Your task to perform on an android device: turn notification dots off Image 0: 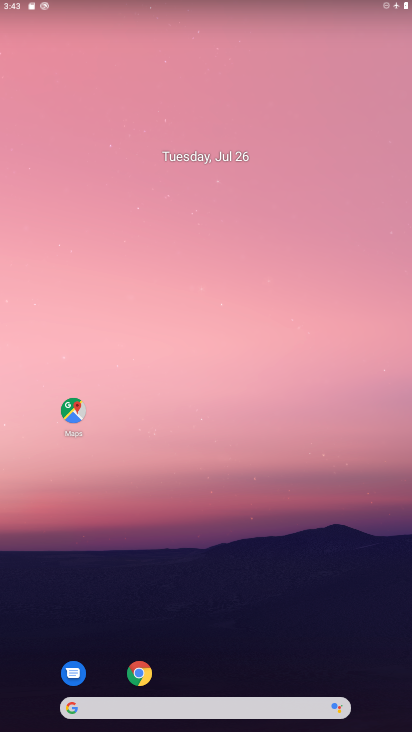
Step 0: drag from (225, 710) to (242, 17)
Your task to perform on an android device: turn notification dots off Image 1: 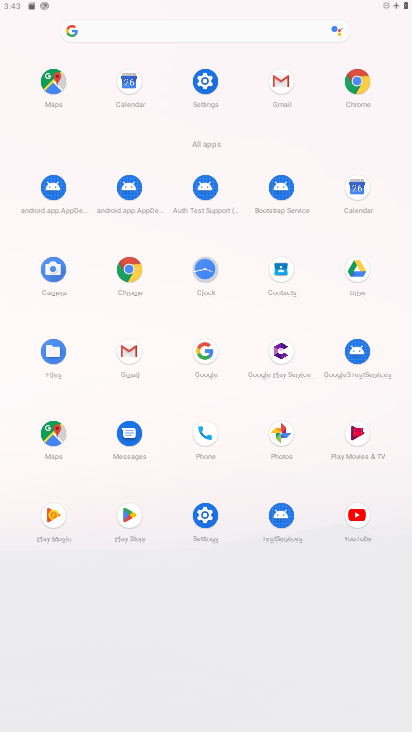
Step 1: click (206, 83)
Your task to perform on an android device: turn notification dots off Image 2: 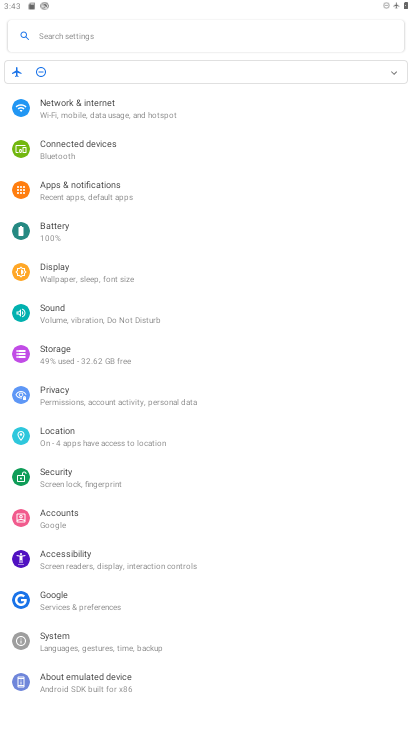
Step 2: click (90, 195)
Your task to perform on an android device: turn notification dots off Image 3: 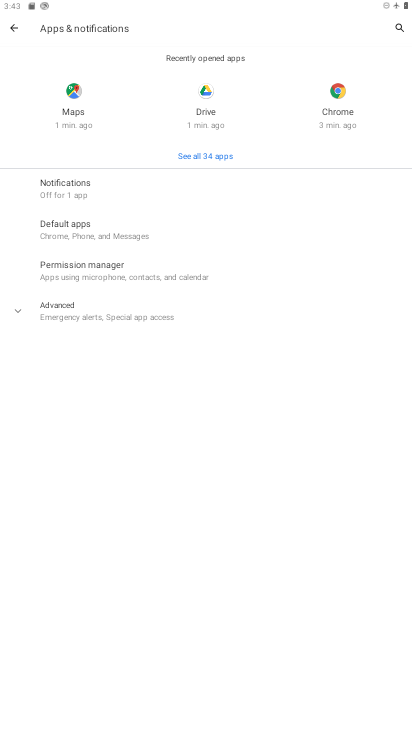
Step 3: click (75, 185)
Your task to perform on an android device: turn notification dots off Image 4: 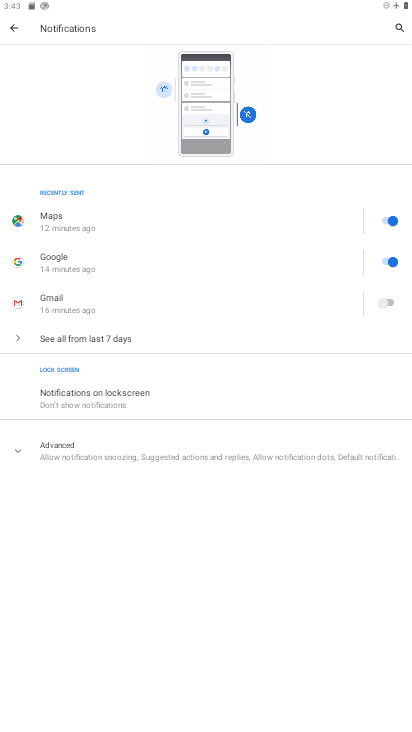
Step 4: click (22, 457)
Your task to perform on an android device: turn notification dots off Image 5: 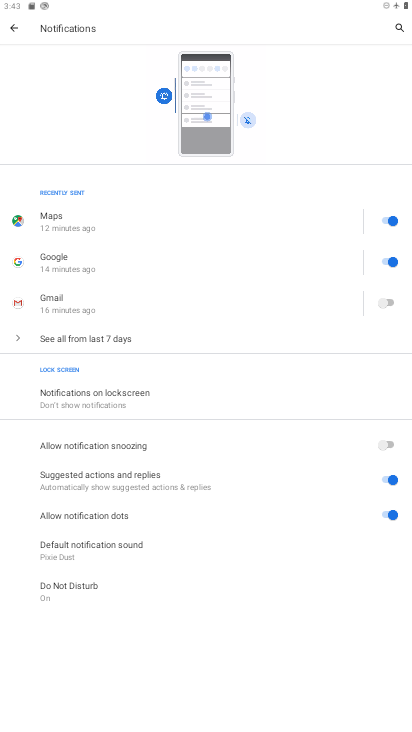
Step 5: click (398, 514)
Your task to perform on an android device: turn notification dots off Image 6: 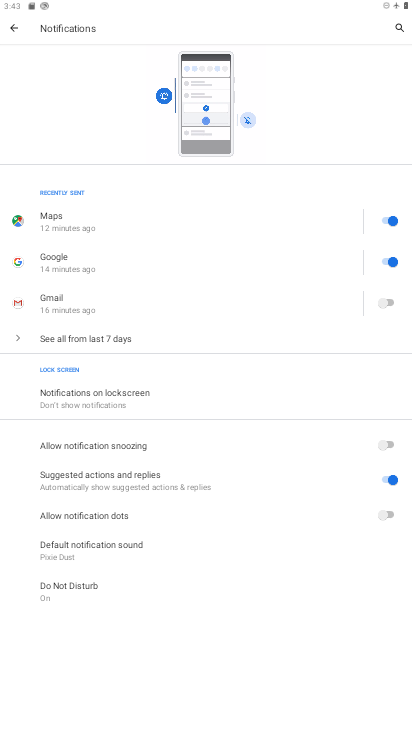
Step 6: task complete